Your task to perform on an android device: open a new tab in the chrome app Image 0: 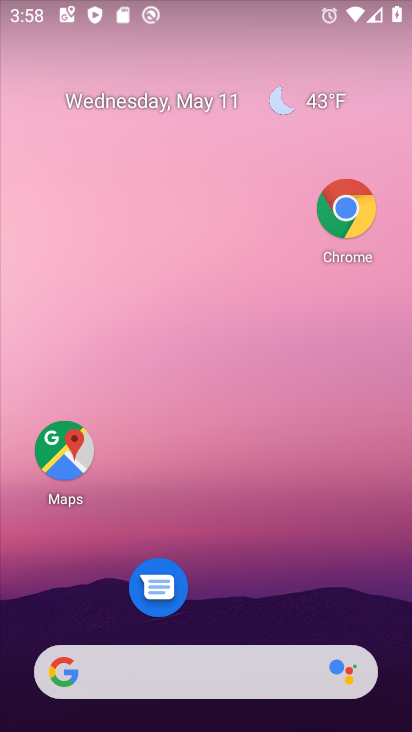
Step 0: click (355, 203)
Your task to perform on an android device: open a new tab in the chrome app Image 1: 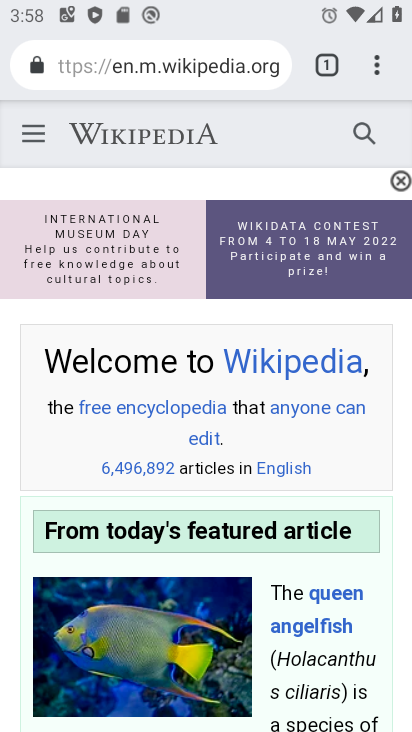
Step 1: click (332, 62)
Your task to perform on an android device: open a new tab in the chrome app Image 2: 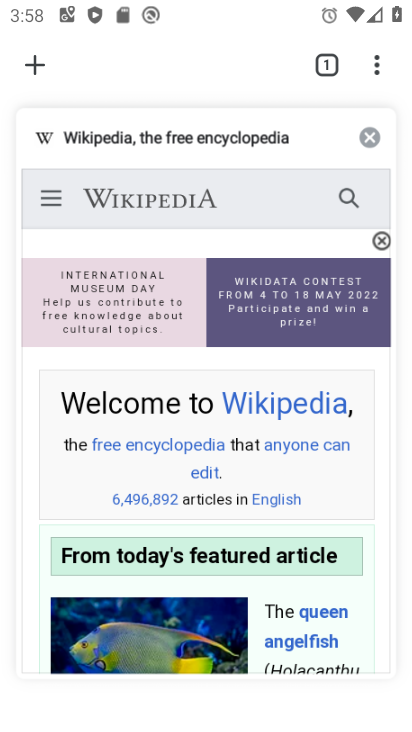
Step 2: click (39, 62)
Your task to perform on an android device: open a new tab in the chrome app Image 3: 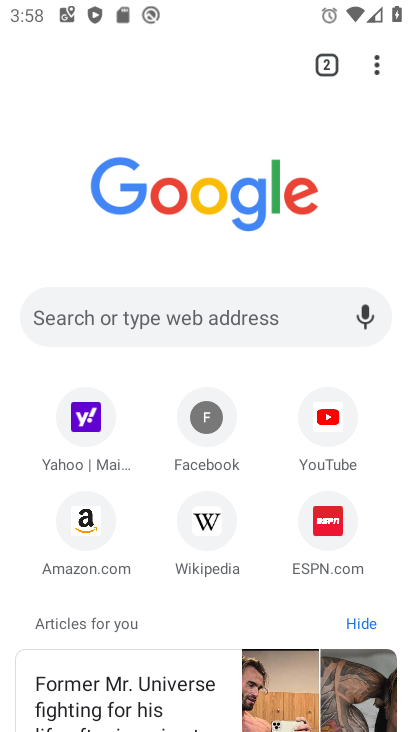
Step 3: task complete